Your task to perform on an android device: Open accessibility settings Image 0: 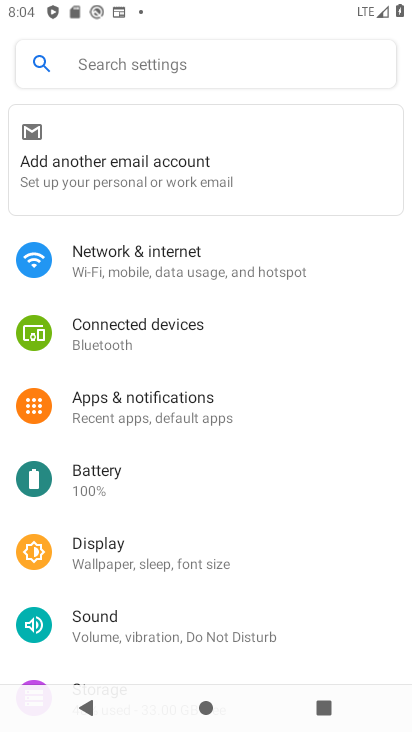
Step 0: drag from (237, 567) to (286, 94)
Your task to perform on an android device: Open accessibility settings Image 1: 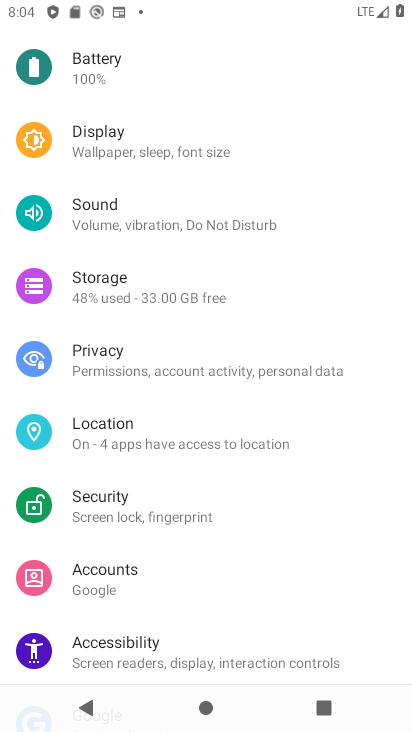
Step 1: drag from (174, 598) to (250, 84)
Your task to perform on an android device: Open accessibility settings Image 2: 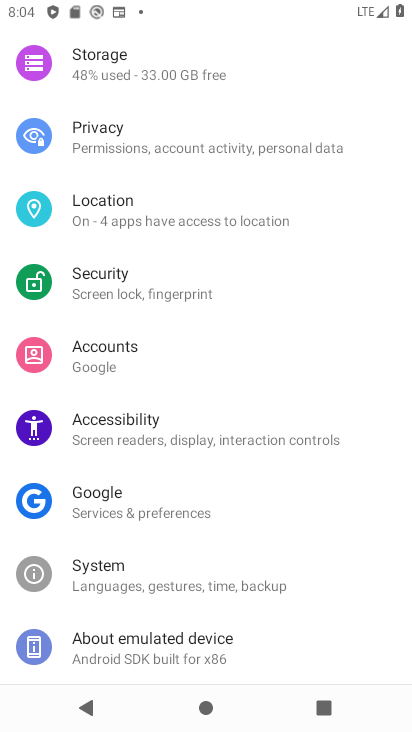
Step 2: click (118, 430)
Your task to perform on an android device: Open accessibility settings Image 3: 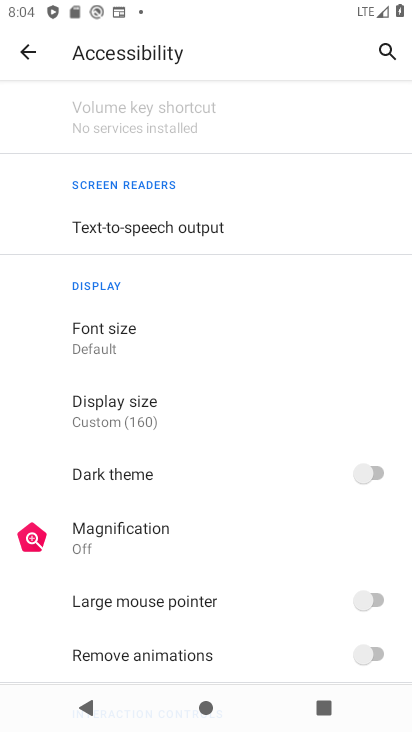
Step 3: task complete